Your task to perform on an android device: Show me recent news Image 0: 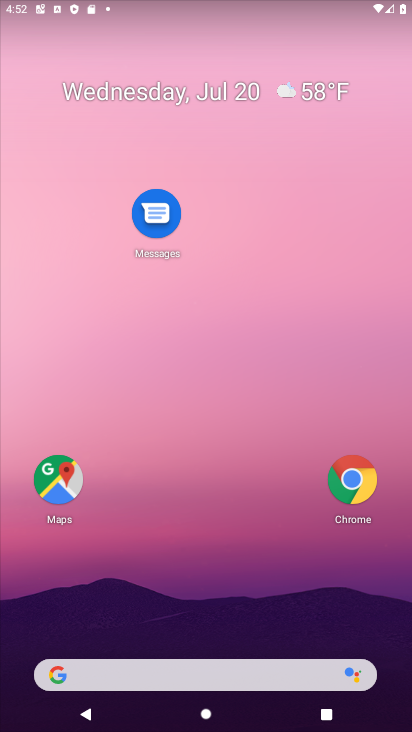
Step 0: drag from (164, 348) to (228, 6)
Your task to perform on an android device: Show me recent news Image 1: 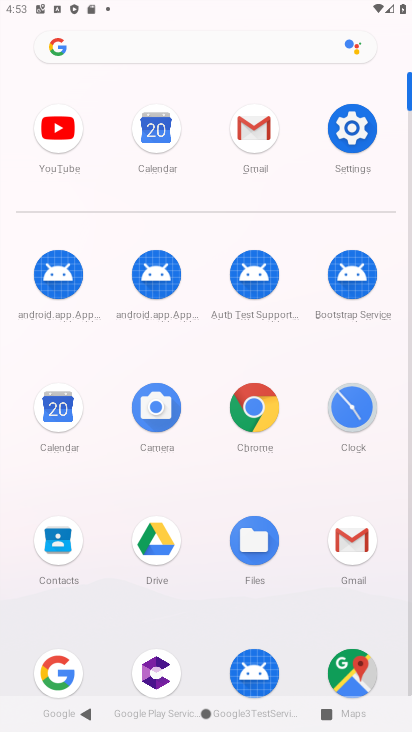
Step 1: click (54, 671)
Your task to perform on an android device: Show me recent news Image 2: 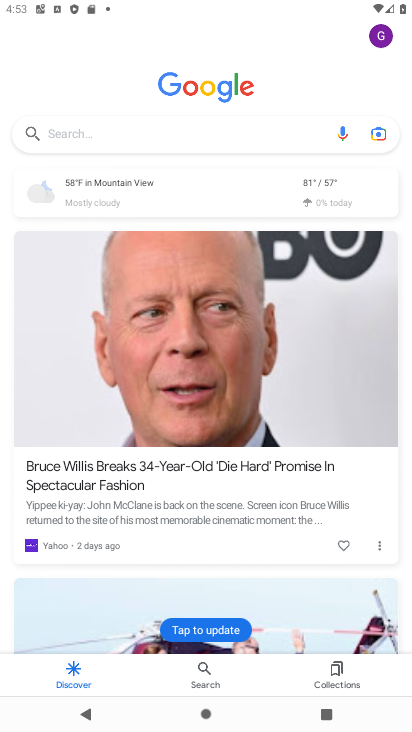
Step 2: click (178, 139)
Your task to perform on an android device: Show me recent news Image 3: 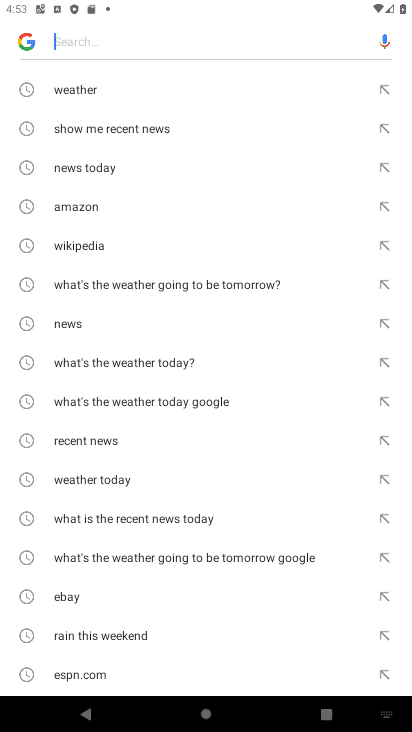
Step 3: click (163, 133)
Your task to perform on an android device: Show me recent news Image 4: 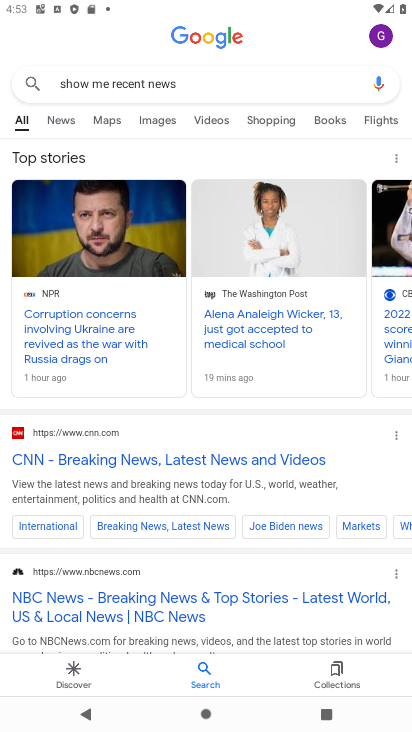
Step 4: task complete